Your task to perform on an android device: Go to Wikipedia Image 0: 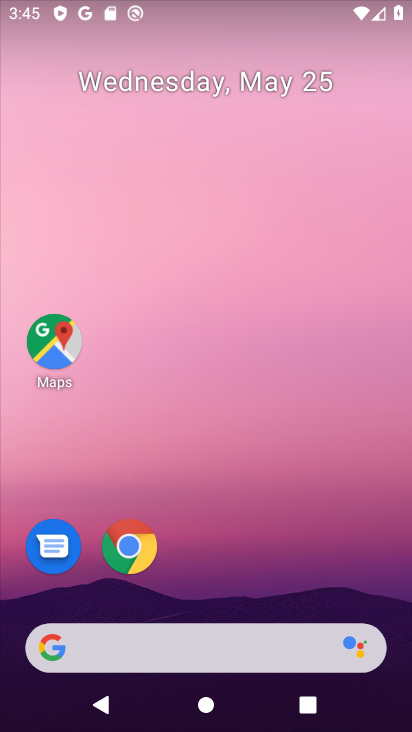
Step 0: click (123, 556)
Your task to perform on an android device: Go to Wikipedia Image 1: 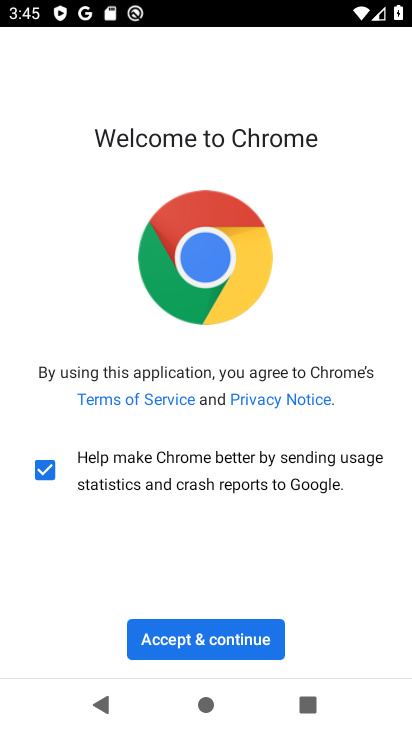
Step 1: click (183, 634)
Your task to perform on an android device: Go to Wikipedia Image 2: 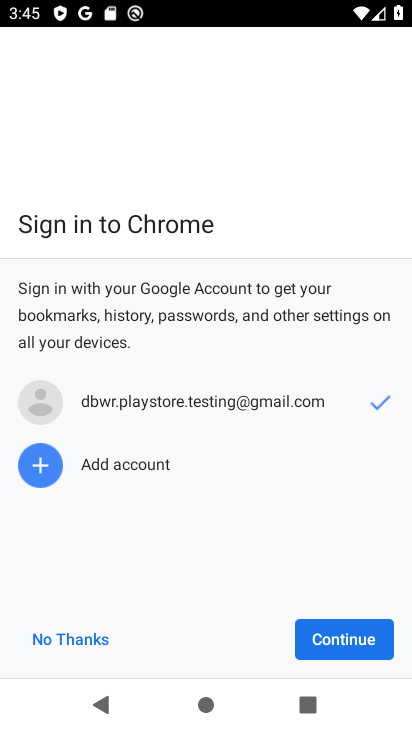
Step 2: click (364, 633)
Your task to perform on an android device: Go to Wikipedia Image 3: 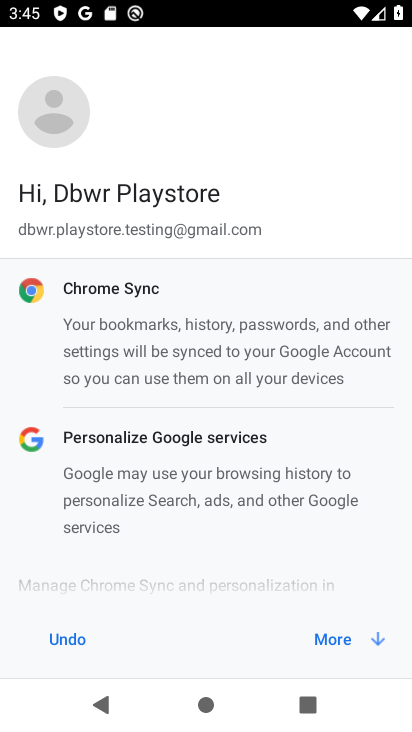
Step 3: click (357, 634)
Your task to perform on an android device: Go to Wikipedia Image 4: 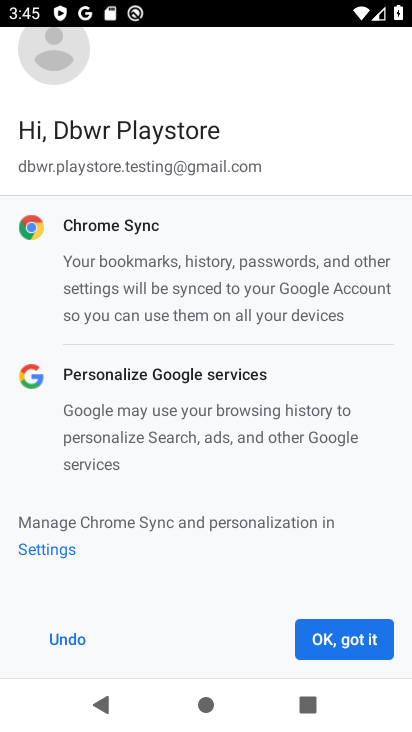
Step 4: click (351, 629)
Your task to perform on an android device: Go to Wikipedia Image 5: 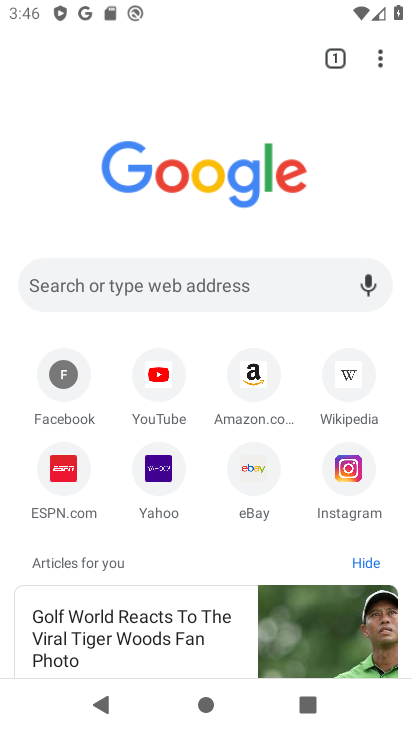
Step 5: click (343, 378)
Your task to perform on an android device: Go to Wikipedia Image 6: 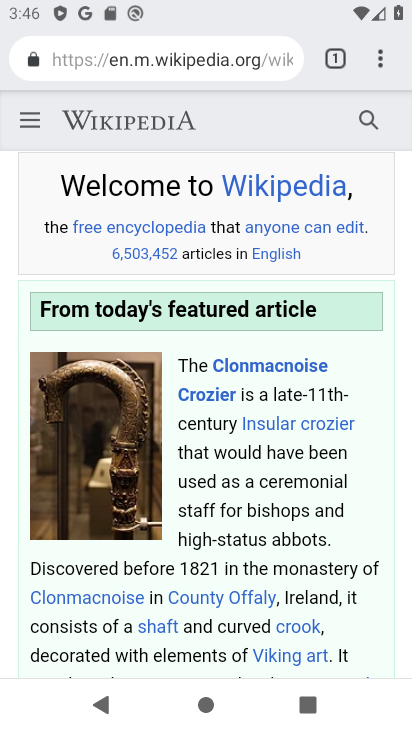
Step 6: task complete